Your task to perform on an android device: open device folders in google photos Image 0: 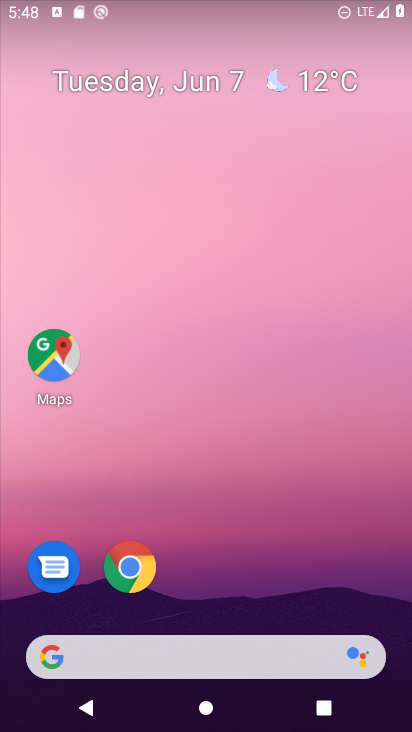
Step 0: drag from (349, 645) to (397, 455)
Your task to perform on an android device: open device folders in google photos Image 1: 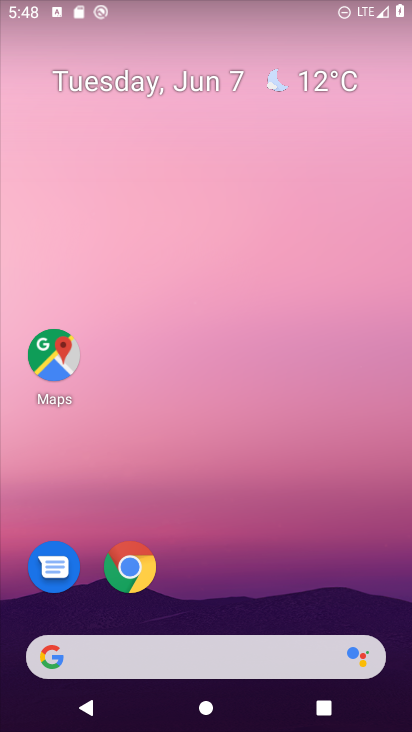
Step 1: drag from (302, 653) to (355, 16)
Your task to perform on an android device: open device folders in google photos Image 2: 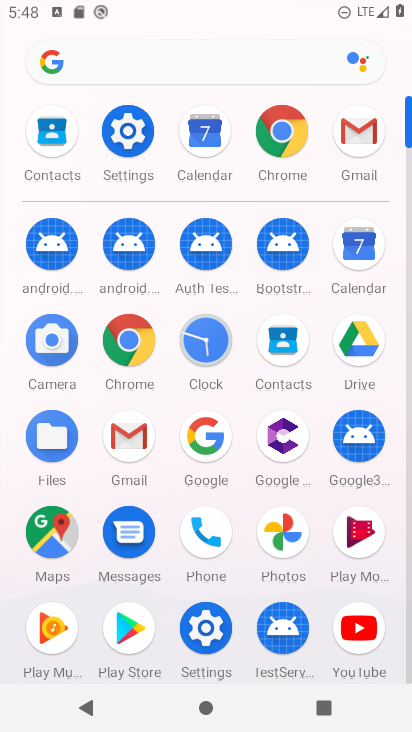
Step 2: click (288, 535)
Your task to perform on an android device: open device folders in google photos Image 3: 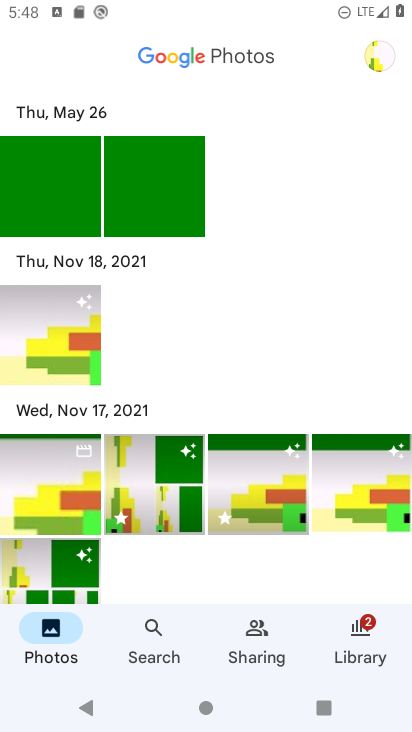
Step 3: click (394, 52)
Your task to perform on an android device: open device folders in google photos Image 4: 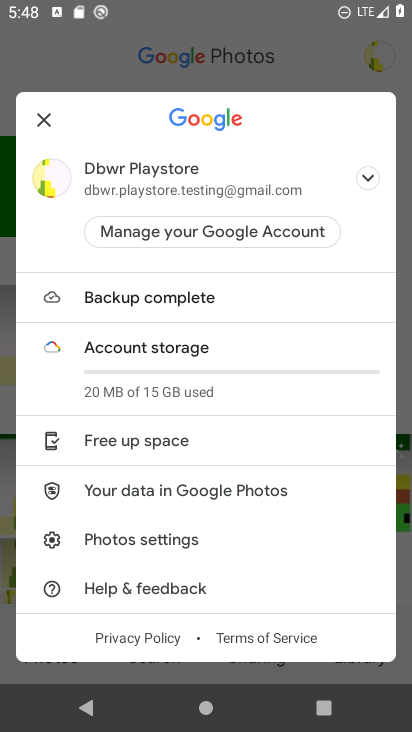
Step 4: task complete